Your task to perform on an android device: turn off location Image 0: 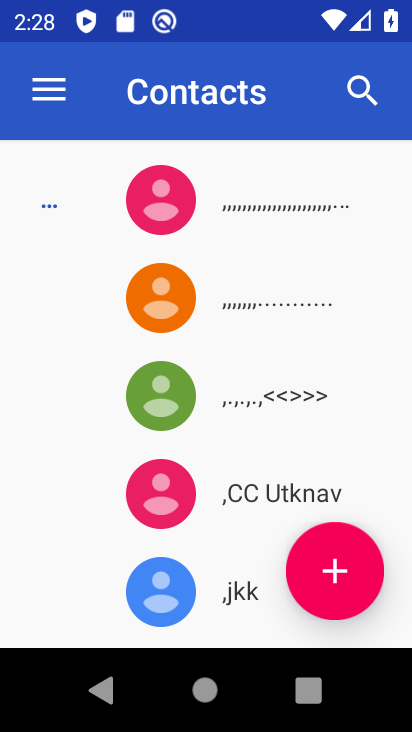
Step 0: press home button
Your task to perform on an android device: turn off location Image 1: 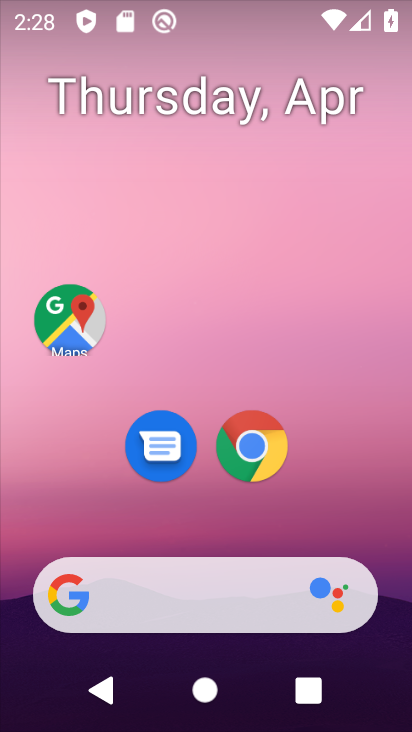
Step 1: drag from (240, 654) to (277, 219)
Your task to perform on an android device: turn off location Image 2: 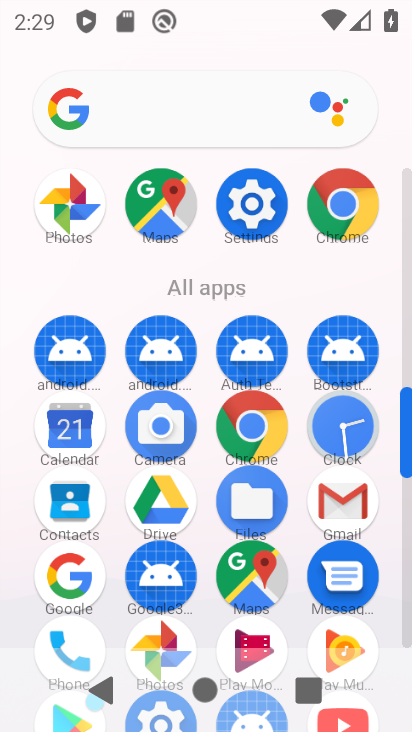
Step 2: click (257, 222)
Your task to perform on an android device: turn off location Image 3: 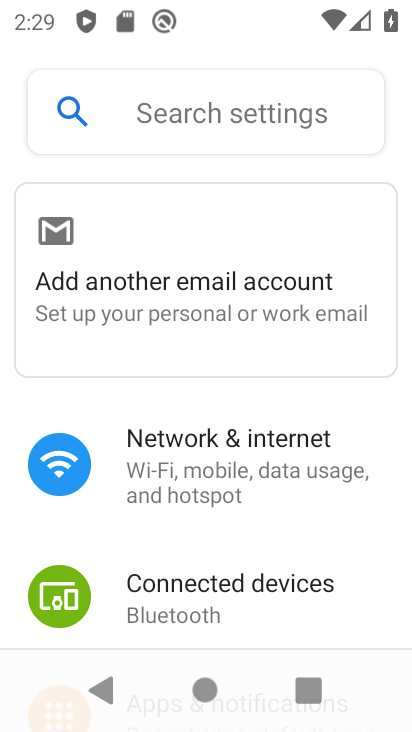
Step 3: click (196, 129)
Your task to perform on an android device: turn off location Image 4: 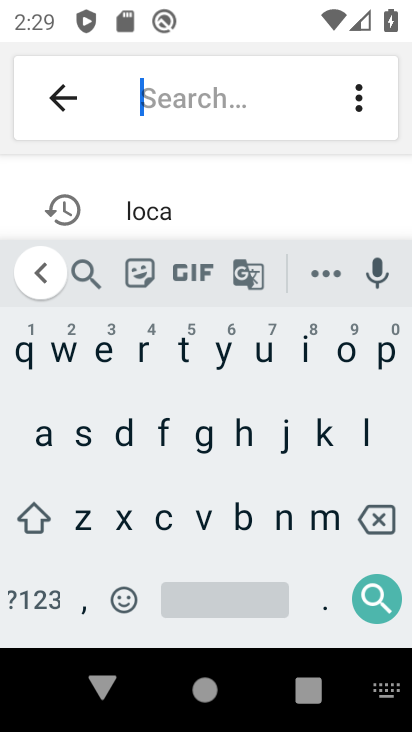
Step 4: click (151, 198)
Your task to perform on an android device: turn off location Image 5: 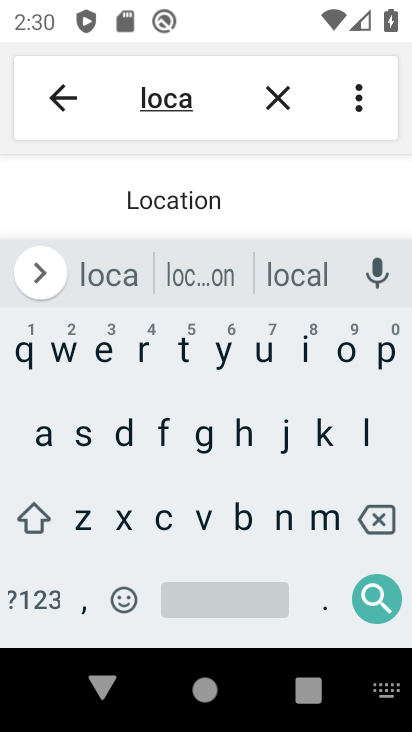
Step 5: press back button
Your task to perform on an android device: turn off location Image 6: 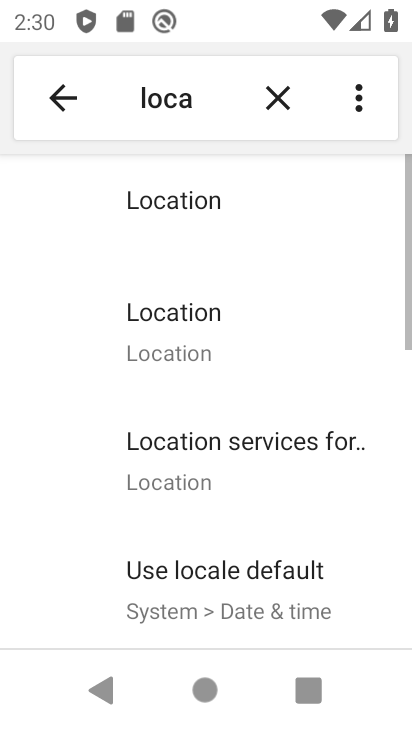
Step 6: click (215, 329)
Your task to perform on an android device: turn off location Image 7: 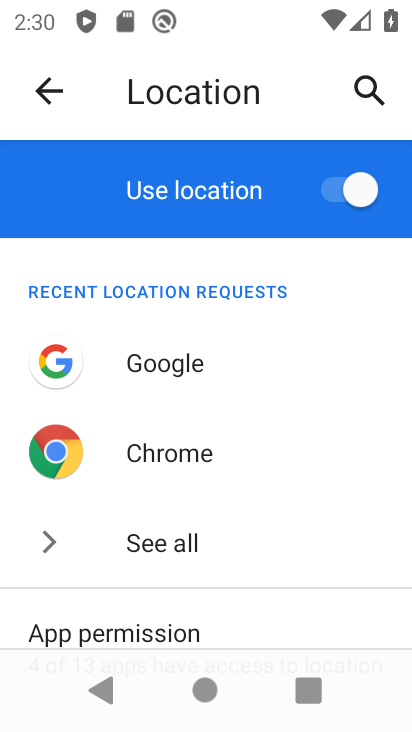
Step 7: click (351, 205)
Your task to perform on an android device: turn off location Image 8: 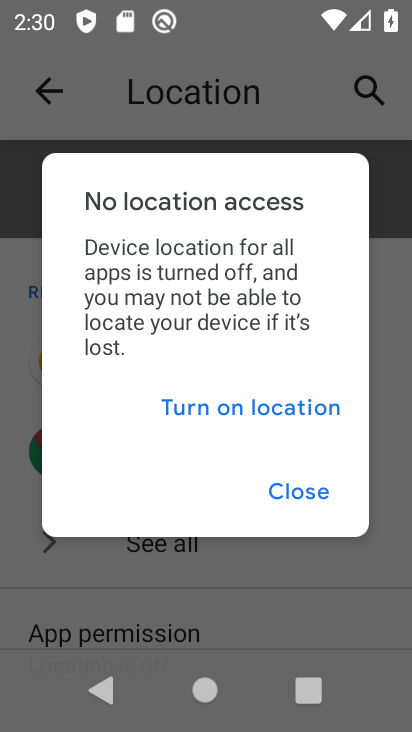
Step 8: task complete